Your task to perform on an android device: change text size in settings app Image 0: 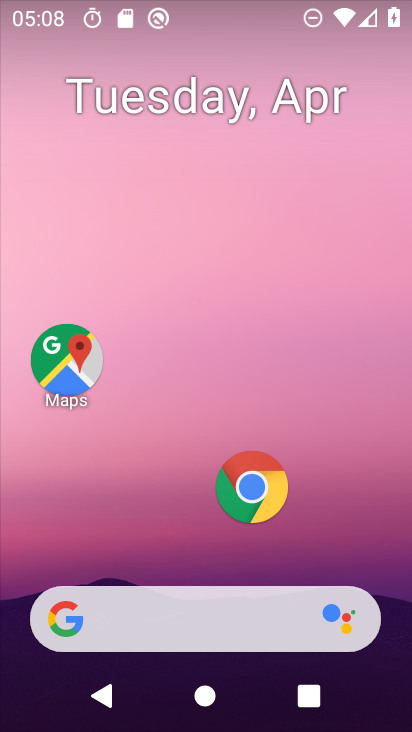
Step 0: drag from (250, 424) to (300, 8)
Your task to perform on an android device: change text size in settings app Image 1: 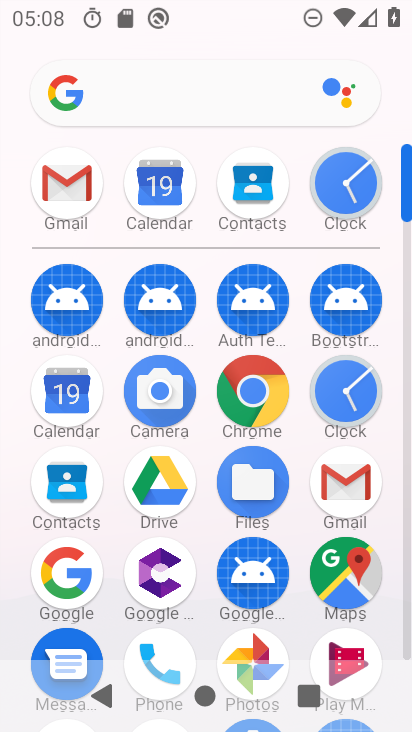
Step 1: drag from (211, 606) to (288, 73)
Your task to perform on an android device: change text size in settings app Image 2: 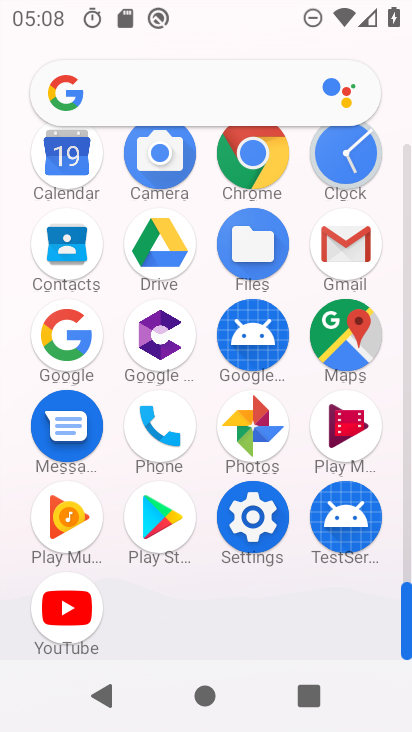
Step 2: click (253, 518)
Your task to perform on an android device: change text size in settings app Image 3: 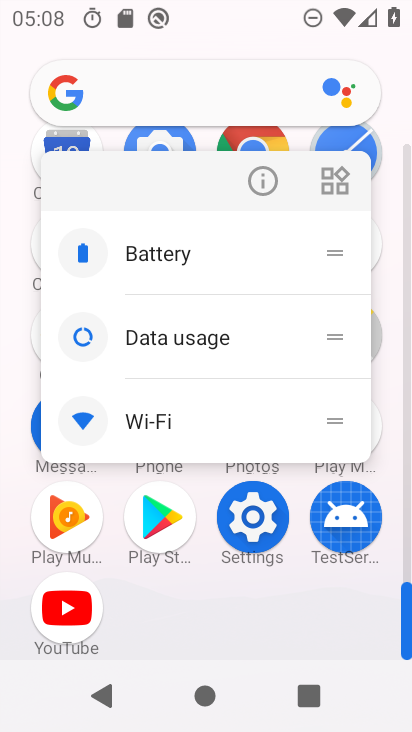
Step 3: click (253, 518)
Your task to perform on an android device: change text size in settings app Image 4: 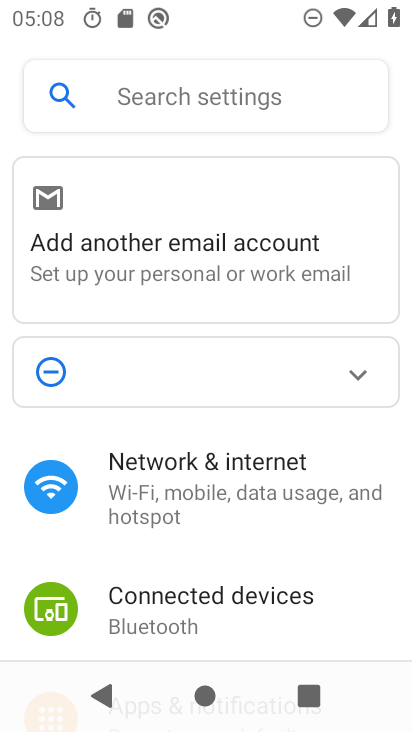
Step 4: click (173, 95)
Your task to perform on an android device: change text size in settings app Image 5: 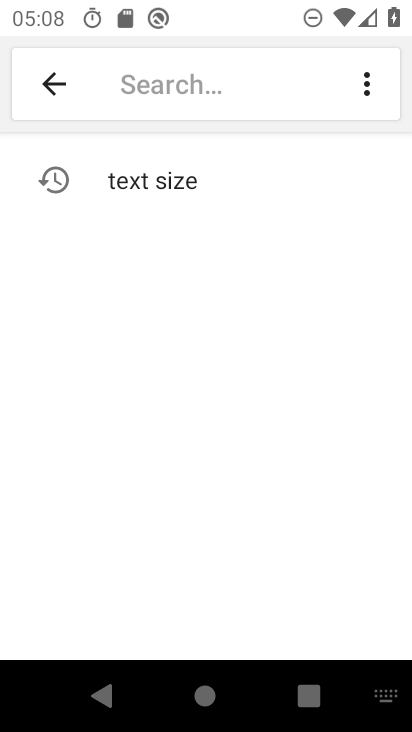
Step 5: type "text "
Your task to perform on an android device: change text size in settings app Image 6: 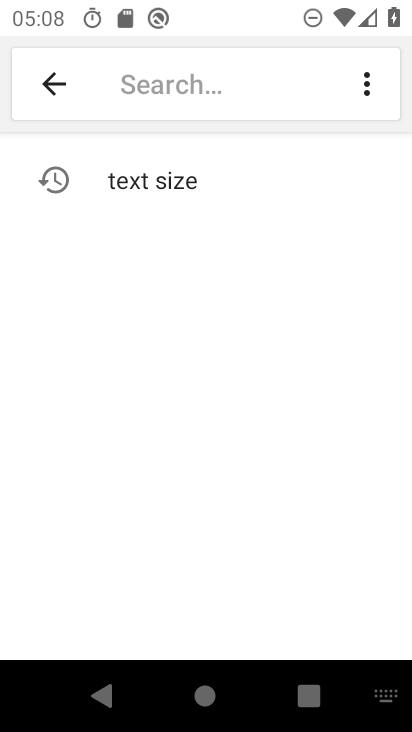
Step 6: click (165, 167)
Your task to perform on an android device: change text size in settings app Image 7: 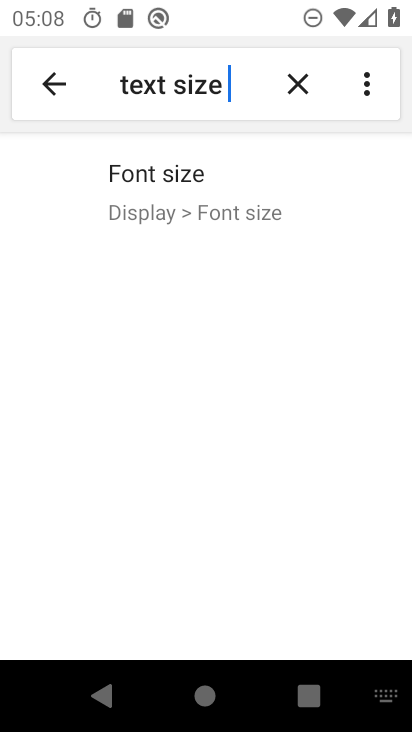
Step 7: click (163, 189)
Your task to perform on an android device: change text size in settings app Image 8: 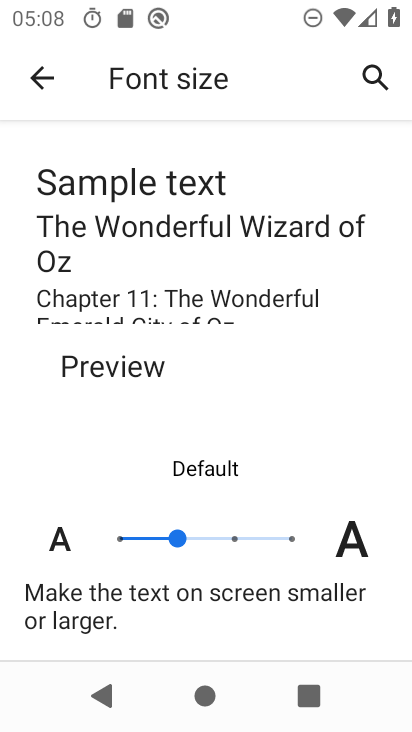
Step 8: task complete